Your task to perform on an android device: open a bookmark in the chrome app Image 0: 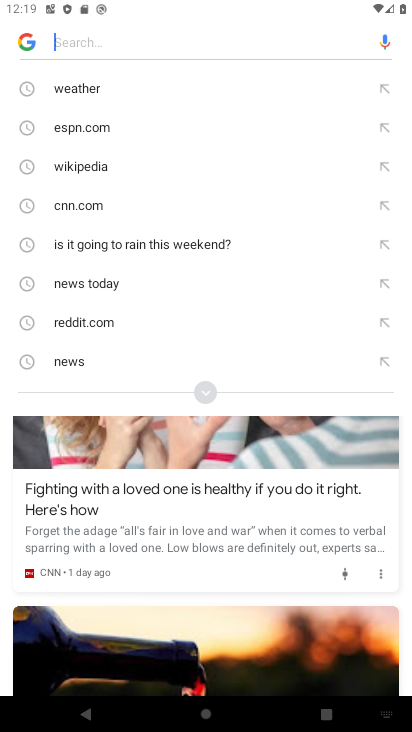
Step 0: press home button
Your task to perform on an android device: open a bookmark in the chrome app Image 1: 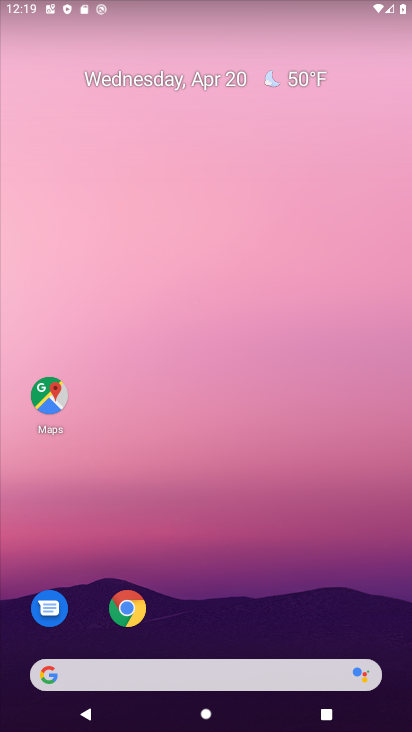
Step 1: click (130, 614)
Your task to perform on an android device: open a bookmark in the chrome app Image 2: 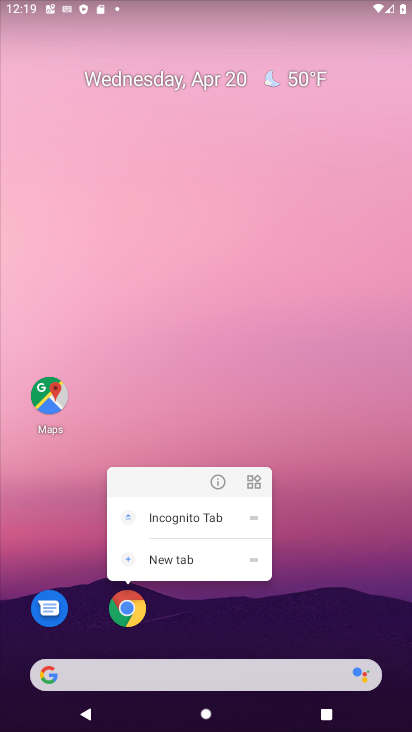
Step 2: click (130, 614)
Your task to perform on an android device: open a bookmark in the chrome app Image 3: 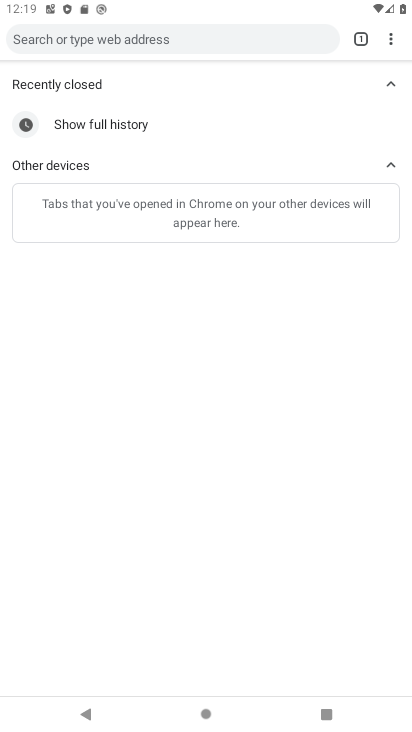
Step 3: click (389, 35)
Your task to perform on an android device: open a bookmark in the chrome app Image 4: 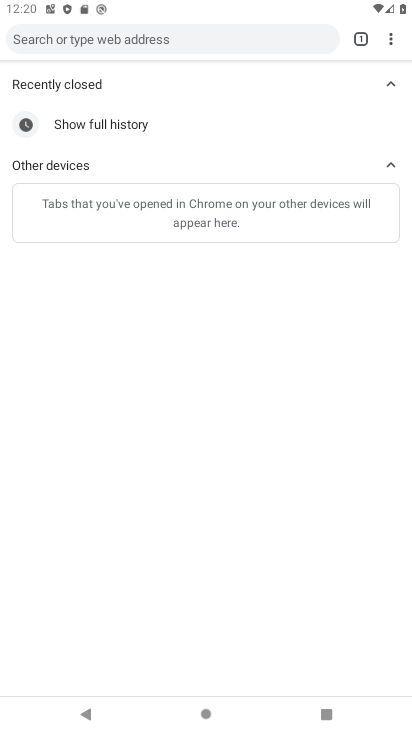
Step 4: click (388, 34)
Your task to perform on an android device: open a bookmark in the chrome app Image 5: 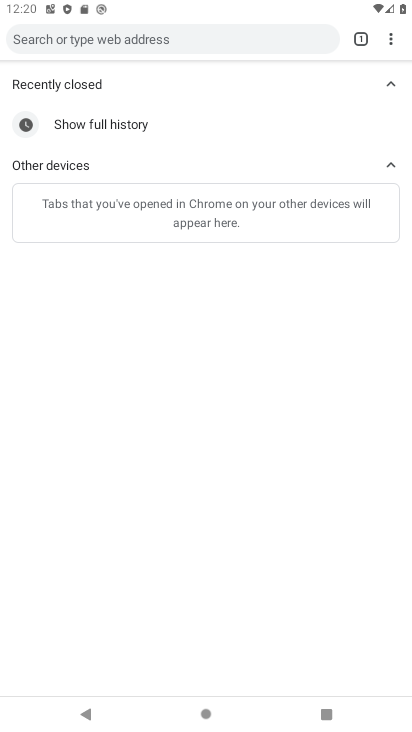
Step 5: click (388, 34)
Your task to perform on an android device: open a bookmark in the chrome app Image 6: 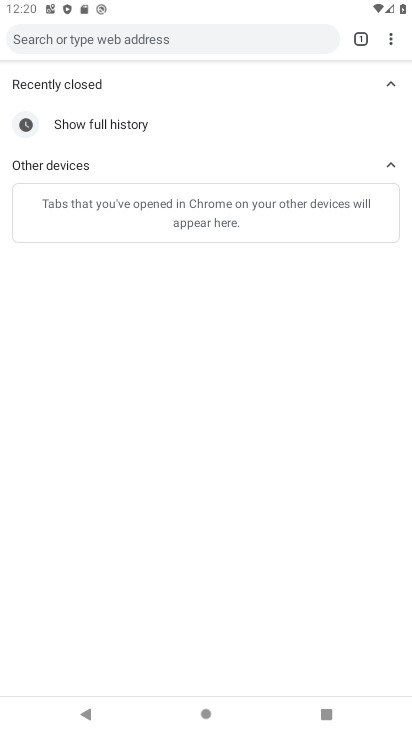
Step 6: click (388, 45)
Your task to perform on an android device: open a bookmark in the chrome app Image 7: 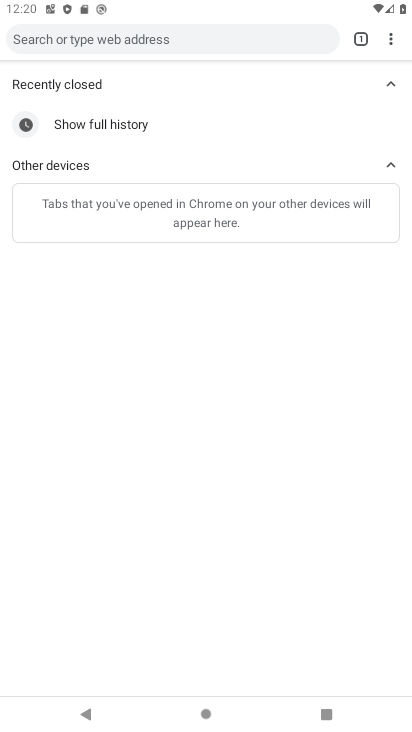
Step 7: click (389, 38)
Your task to perform on an android device: open a bookmark in the chrome app Image 8: 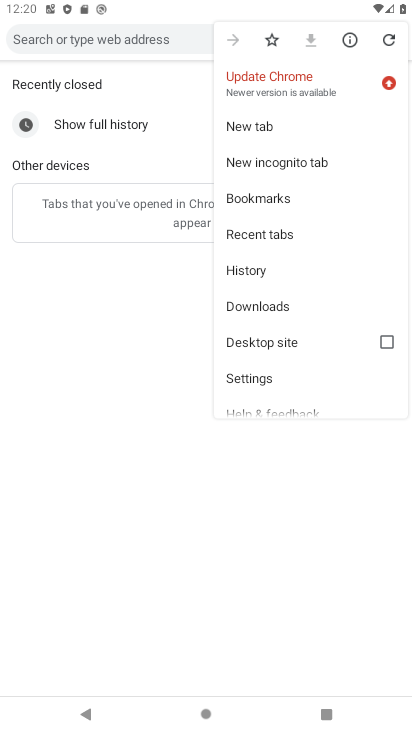
Step 8: click (251, 193)
Your task to perform on an android device: open a bookmark in the chrome app Image 9: 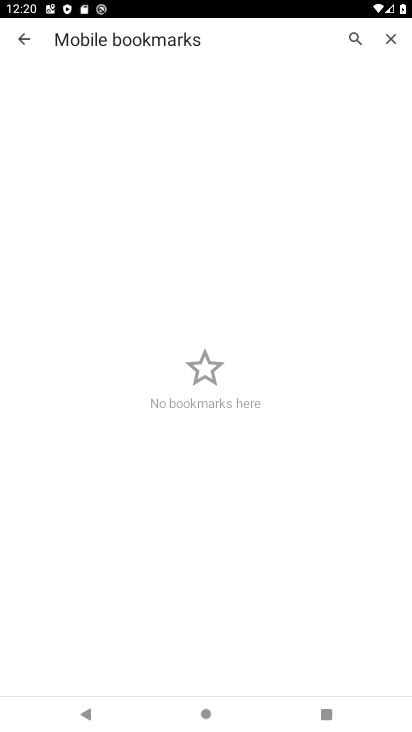
Step 9: task complete